Your task to perform on an android device: Add "logitech g910" to the cart on newegg Image 0: 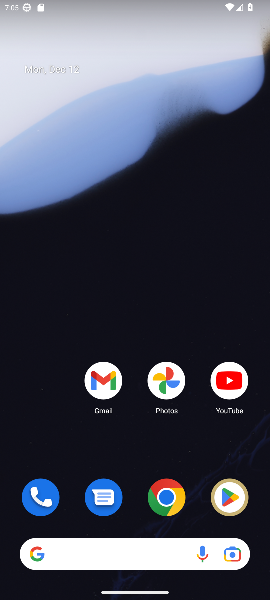
Step 0: press home button
Your task to perform on an android device: Add "logitech g910" to the cart on newegg Image 1: 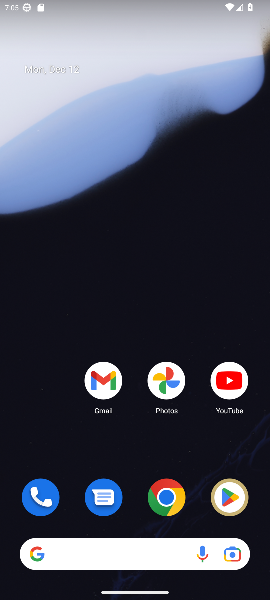
Step 1: drag from (54, 423) to (55, 58)
Your task to perform on an android device: Add "logitech g910" to the cart on newegg Image 2: 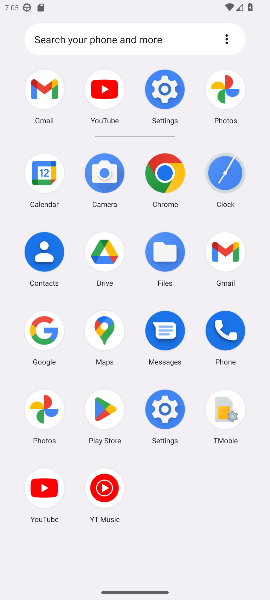
Step 2: click (29, 336)
Your task to perform on an android device: Add "logitech g910" to the cart on newegg Image 3: 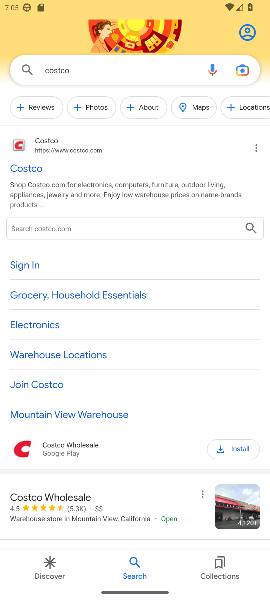
Step 3: click (158, 70)
Your task to perform on an android device: Add "logitech g910" to the cart on newegg Image 4: 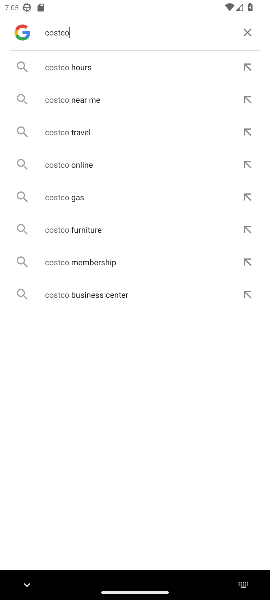
Step 4: click (242, 31)
Your task to perform on an android device: Add "logitech g910" to the cart on newegg Image 5: 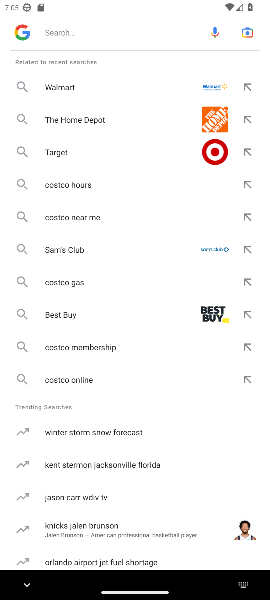
Step 5: type "newegg"
Your task to perform on an android device: Add "logitech g910" to the cart on newegg Image 6: 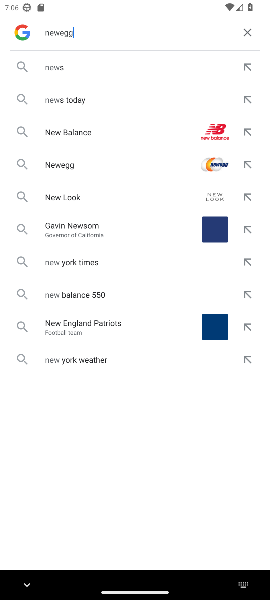
Step 6: press enter
Your task to perform on an android device: Add "logitech g910" to the cart on newegg Image 7: 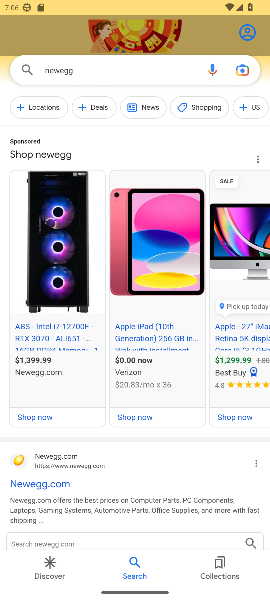
Step 7: click (32, 481)
Your task to perform on an android device: Add "logitech g910" to the cart on newegg Image 8: 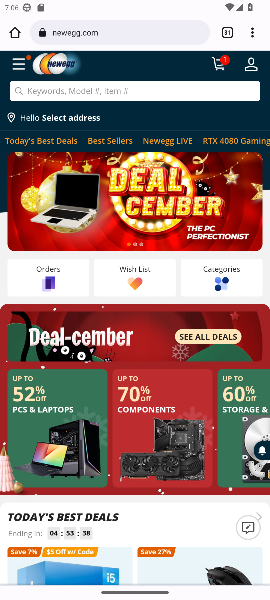
Step 8: click (127, 90)
Your task to perform on an android device: Add "logitech g910" to the cart on newegg Image 9: 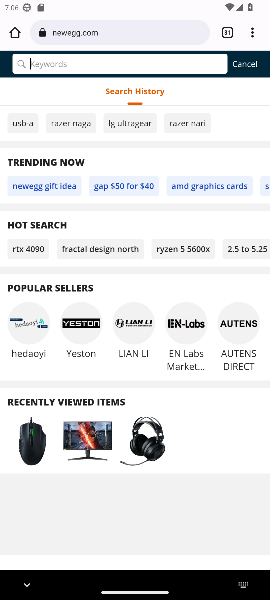
Step 9: type "logitech g910"
Your task to perform on an android device: Add "logitech g910" to the cart on newegg Image 10: 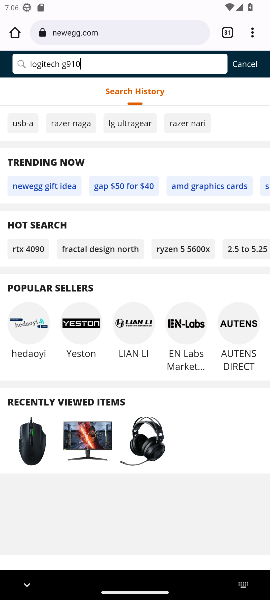
Step 10: press enter
Your task to perform on an android device: Add "logitech g910" to the cart on newegg Image 11: 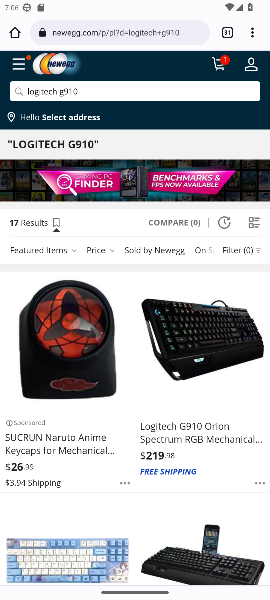
Step 11: click (201, 432)
Your task to perform on an android device: Add "logitech g910" to the cart on newegg Image 12: 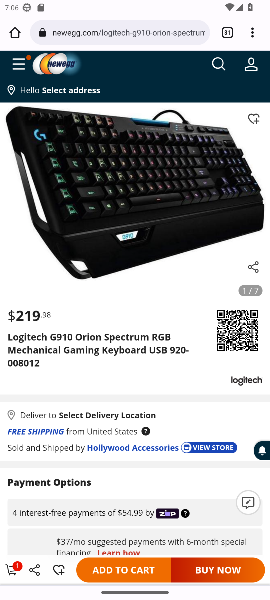
Step 12: click (105, 567)
Your task to perform on an android device: Add "logitech g910" to the cart on newegg Image 13: 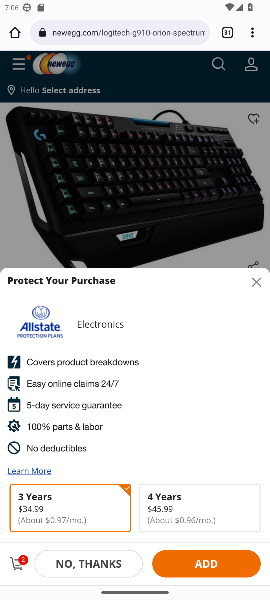
Step 13: task complete